Your task to perform on an android device: open the mobile data screen to see how much data has been used Image 0: 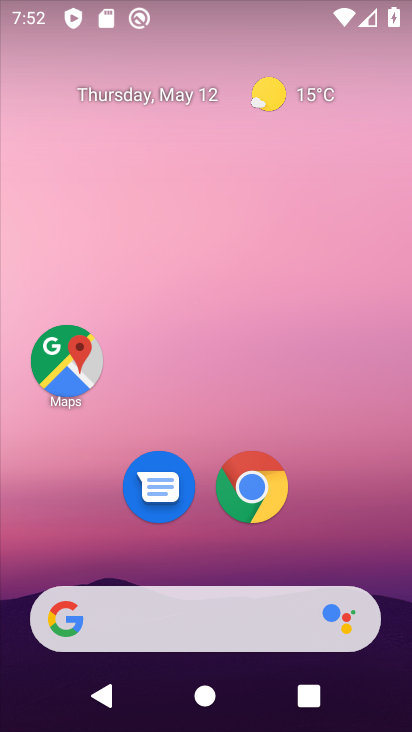
Step 0: drag from (309, 464) to (342, 32)
Your task to perform on an android device: open the mobile data screen to see how much data has been used Image 1: 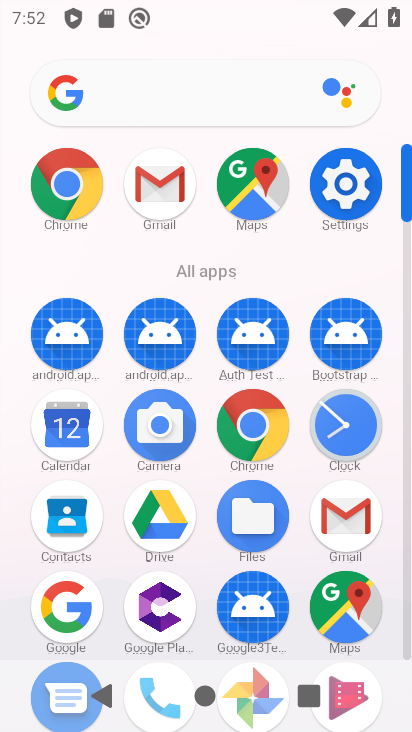
Step 1: click (332, 181)
Your task to perform on an android device: open the mobile data screen to see how much data has been used Image 2: 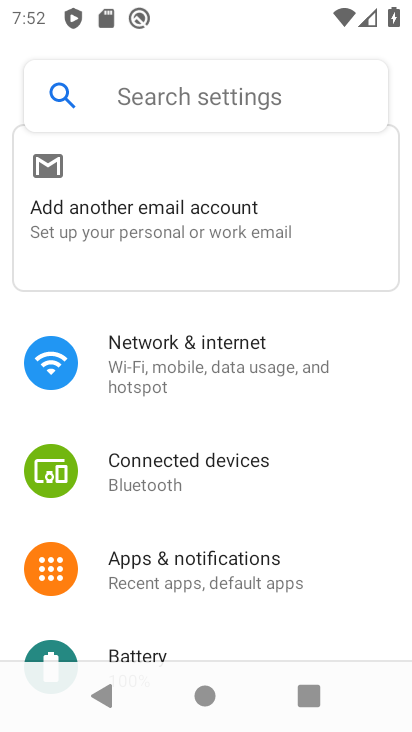
Step 2: click (157, 354)
Your task to perform on an android device: open the mobile data screen to see how much data has been used Image 3: 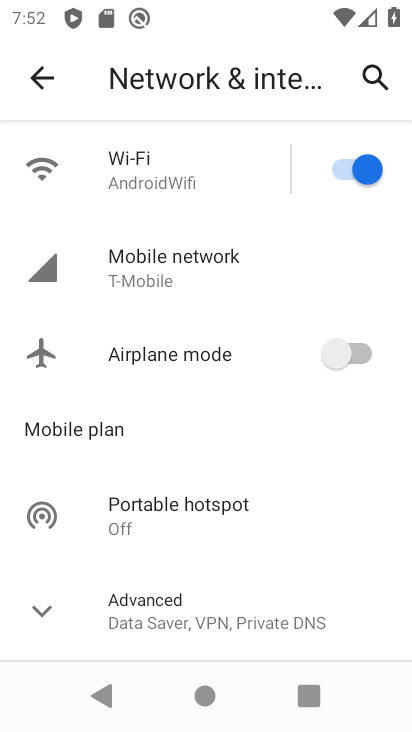
Step 3: click (168, 291)
Your task to perform on an android device: open the mobile data screen to see how much data has been used Image 4: 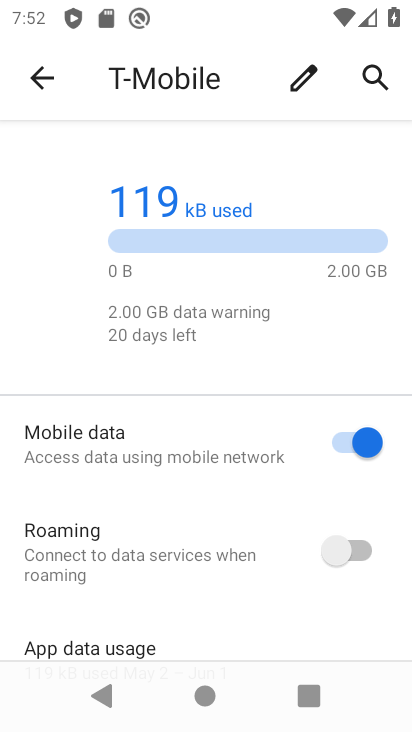
Step 4: task complete